Your task to perform on an android device: Open Google Chrome Image 0: 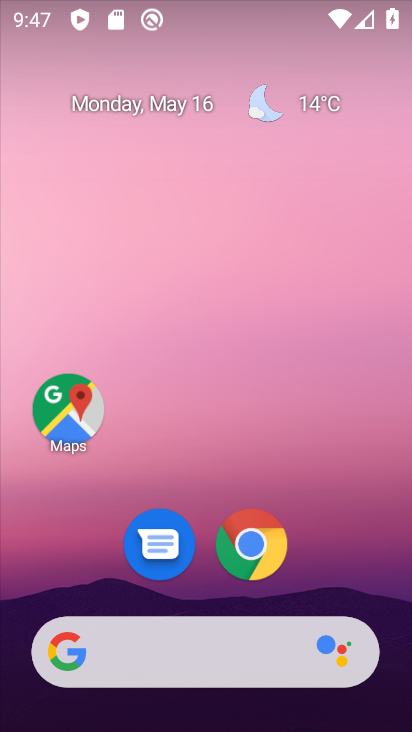
Step 0: click (261, 545)
Your task to perform on an android device: Open Google Chrome Image 1: 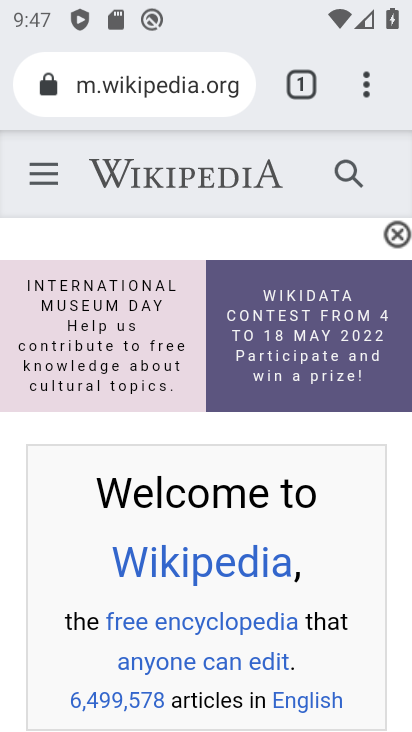
Step 1: task complete